Your task to perform on an android device: Open privacy settings Image 0: 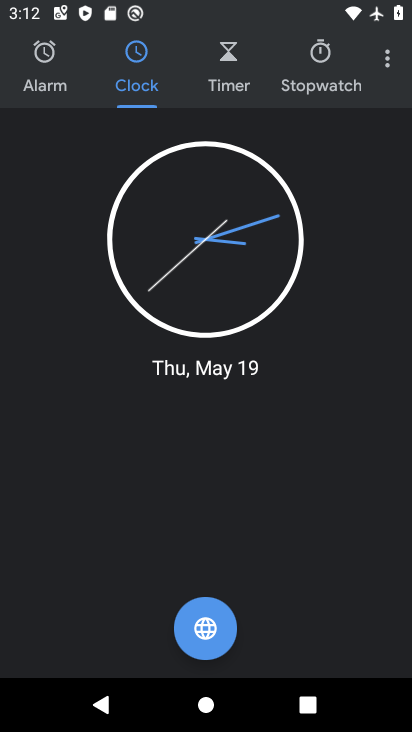
Step 0: press home button
Your task to perform on an android device: Open privacy settings Image 1: 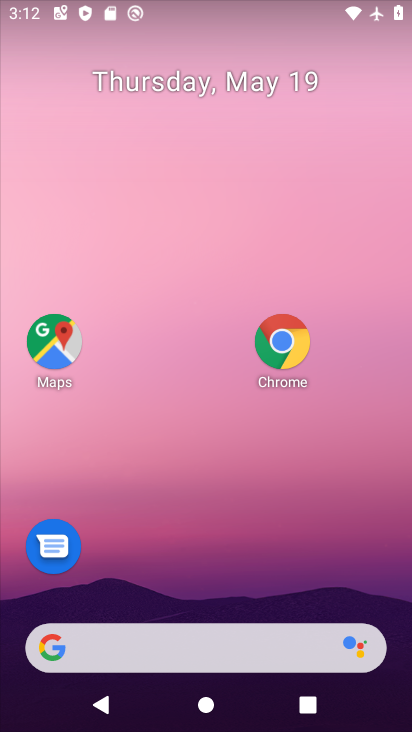
Step 1: drag from (180, 642) to (323, 93)
Your task to perform on an android device: Open privacy settings Image 2: 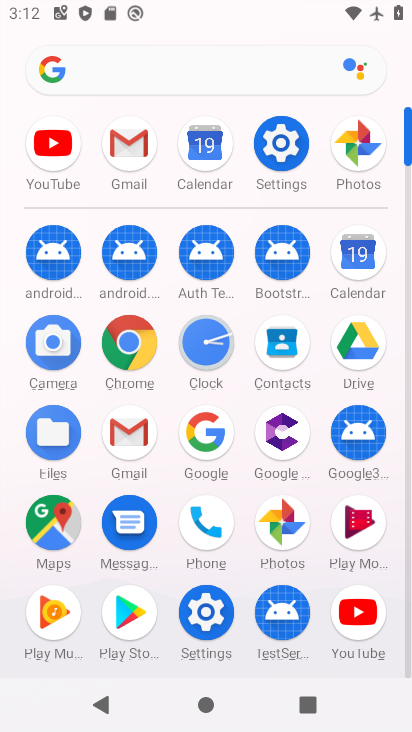
Step 2: click (293, 140)
Your task to perform on an android device: Open privacy settings Image 3: 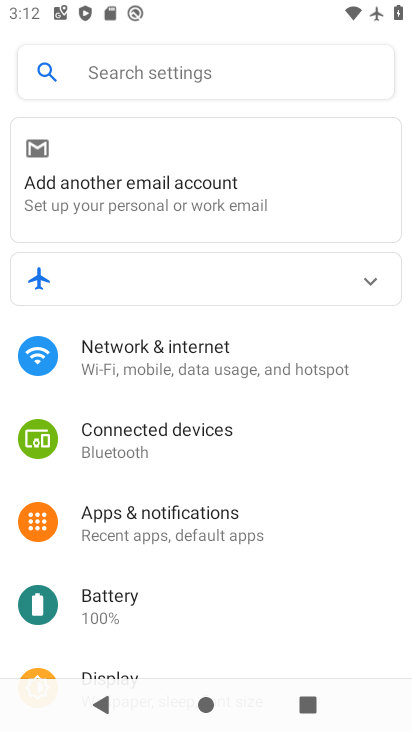
Step 3: drag from (216, 596) to (331, 164)
Your task to perform on an android device: Open privacy settings Image 4: 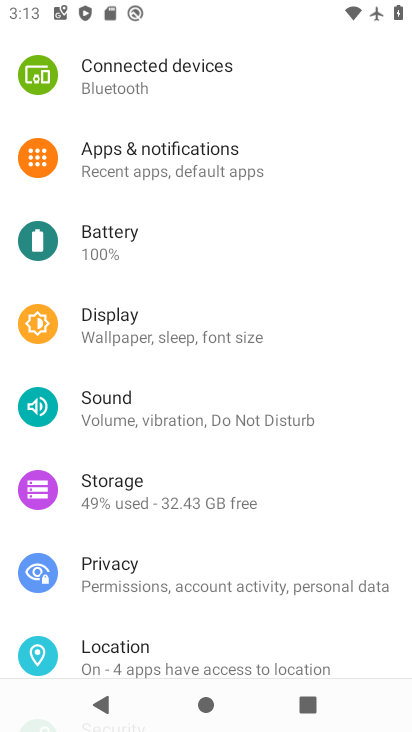
Step 4: click (134, 564)
Your task to perform on an android device: Open privacy settings Image 5: 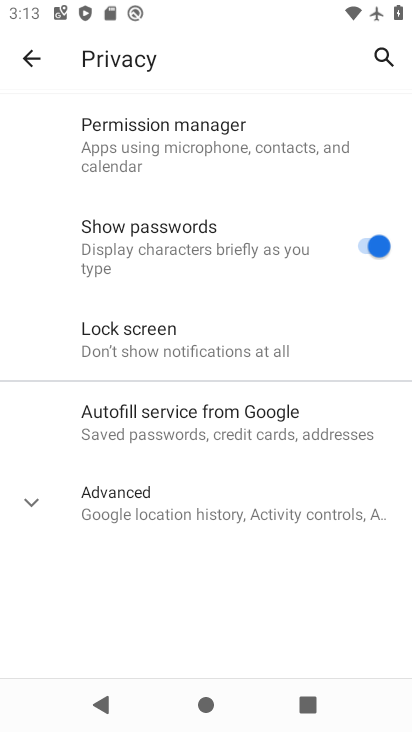
Step 5: task complete